Your task to perform on an android device: Go to display settings Image 0: 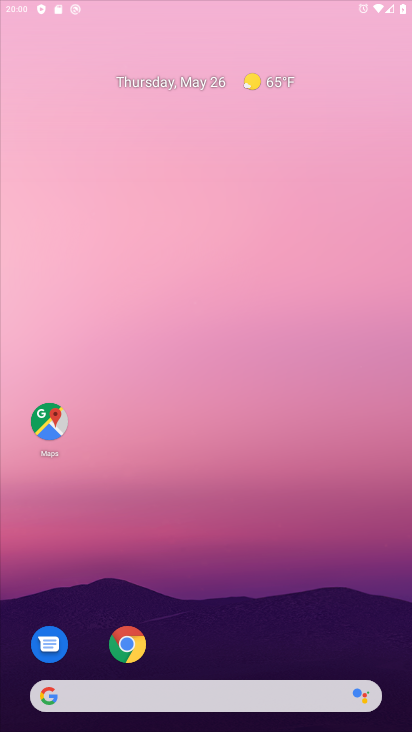
Step 0: drag from (343, 14) to (31, 249)
Your task to perform on an android device: Go to display settings Image 1: 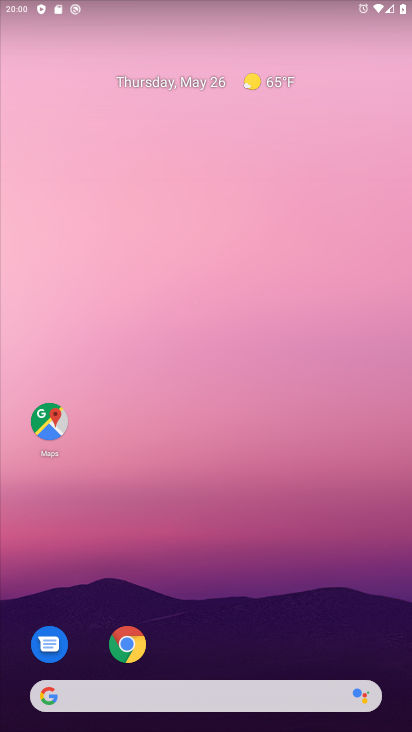
Step 1: drag from (189, 642) to (204, 178)
Your task to perform on an android device: Go to display settings Image 2: 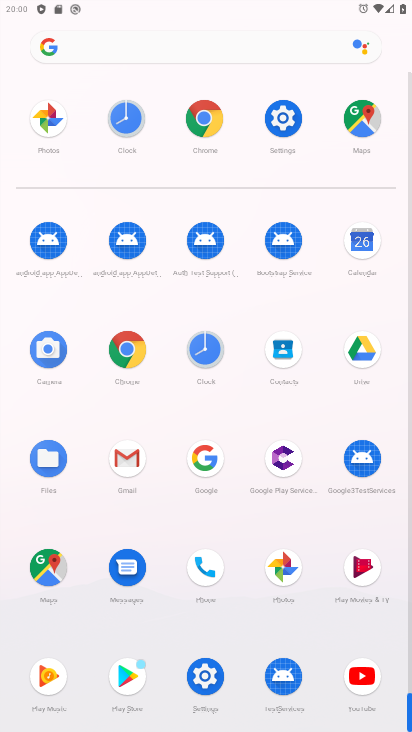
Step 2: click (287, 124)
Your task to perform on an android device: Go to display settings Image 3: 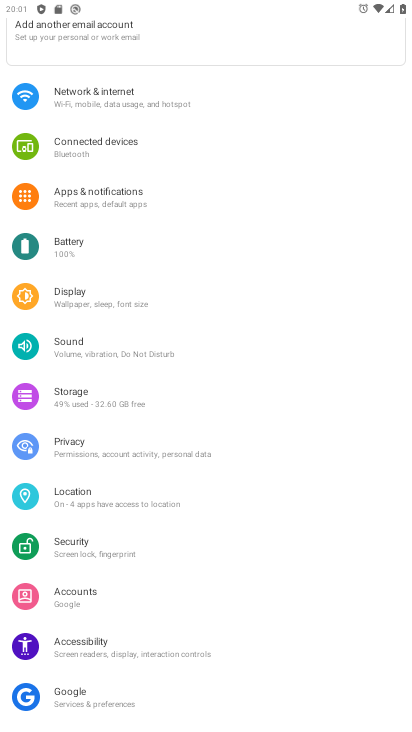
Step 3: click (83, 296)
Your task to perform on an android device: Go to display settings Image 4: 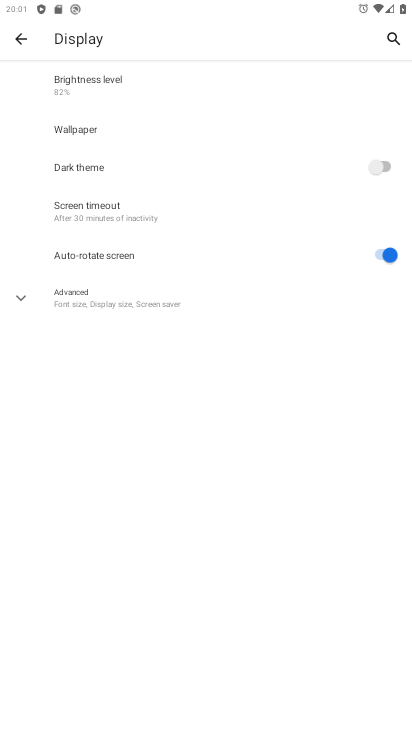
Step 4: task complete